Your task to perform on an android device: Open calendar and show me the fourth week of next month Image 0: 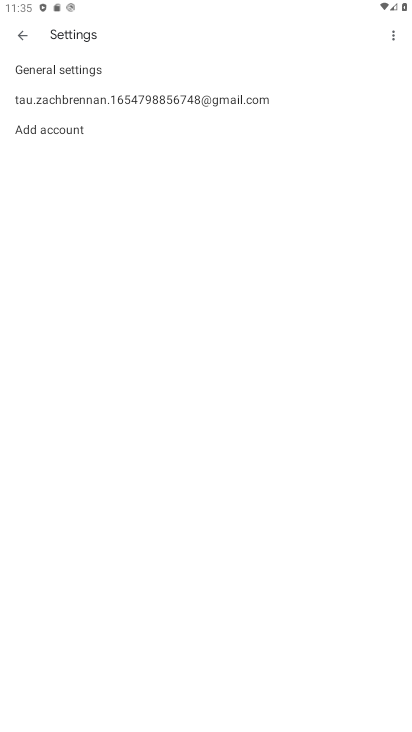
Step 0: press home button
Your task to perform on an android device: Open calendar and show me the fourth week of next month Image 1: 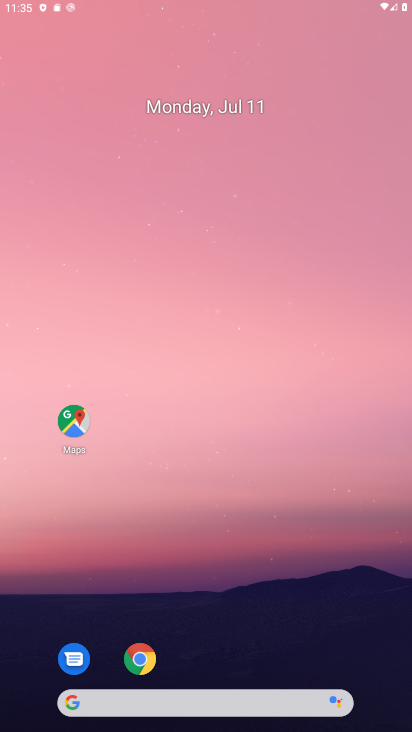
Step 1: drag from (181, 622) to (254, 278)
Your task to perform on an android device: Open calendar and show me the fourth week of next month Image 2: 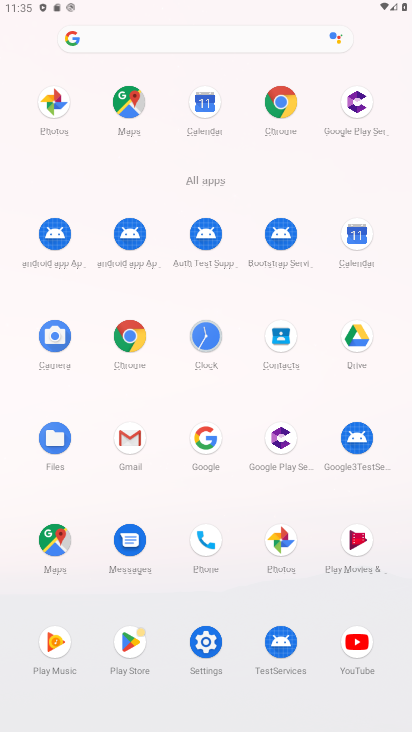
Step 2: drag from (174, 586) to (183, 406)
Your task to perform on an android device: Open calendar and show me the fourth week of next month Image 3: 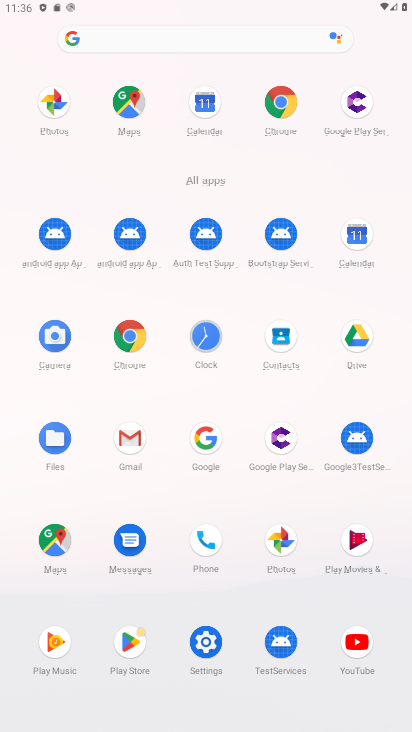
Step 3: drag from (177, 613) to (174, 447)
Your task to perform on an android device: Open calendar and show me the fourth week of next month Image 4: 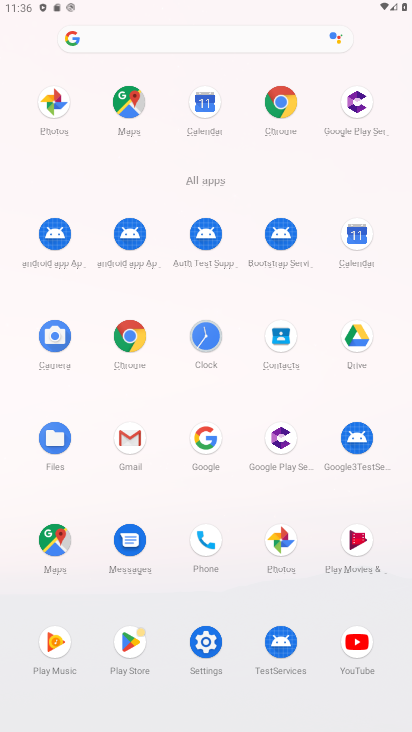
Step 4: click (359, 236)
Your task to perform on an android device: Open calendar and show me the fourth week of next month Image 5: 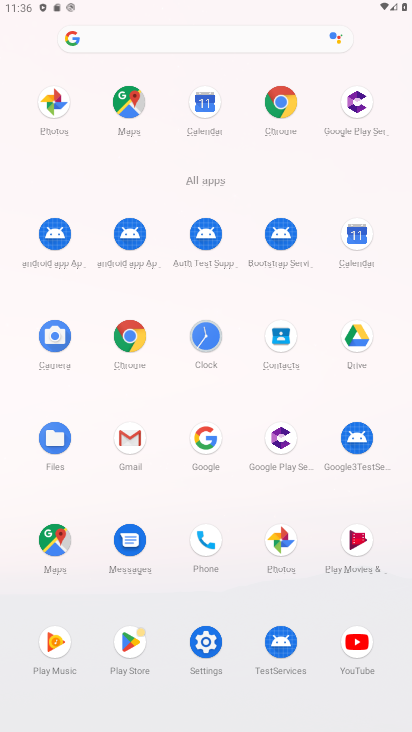
Step 5: click (359, 236)
Your task to perform on an android device: Open calendar and show me the fourth week of next month Image 6: 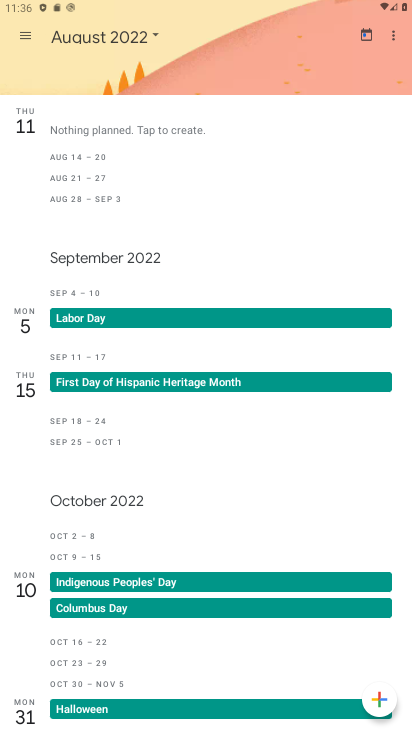
Step 6: drag from (203, 621) to (239, 443)
Your task to perform on an android device: Open calendar and show me the fourth week of next month Image 7: 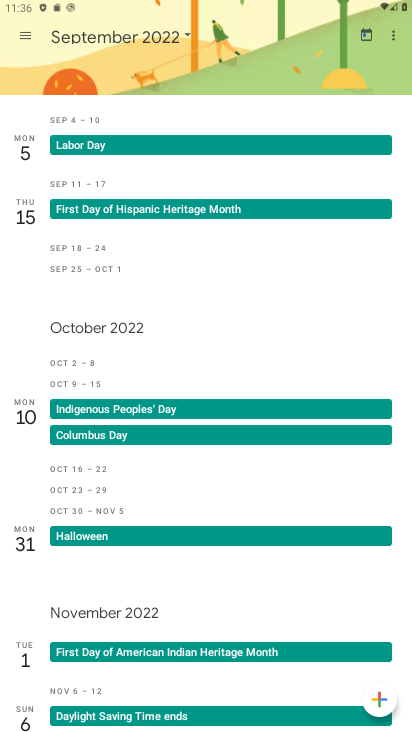
Step 7: drag from (164, 595) to (231, 388)
Your task to perform on an android device: Open calendar and show me the fourth week of next month Image 8: 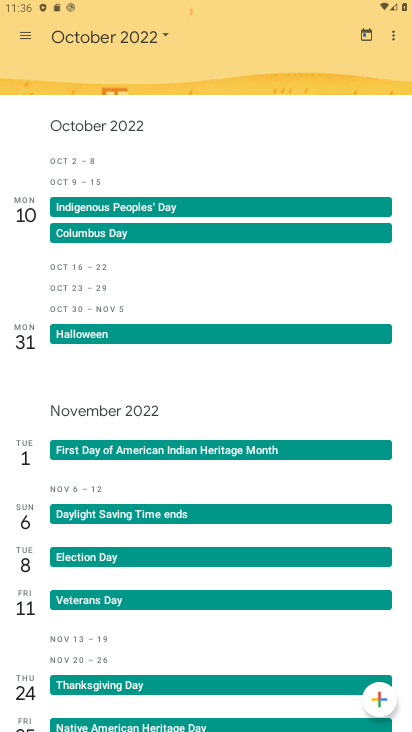
Step 8: drag from (188, 691) to (257, 414)
Your task to perform on an android device: Open calendar and show me the fourth week of next month Image 9: 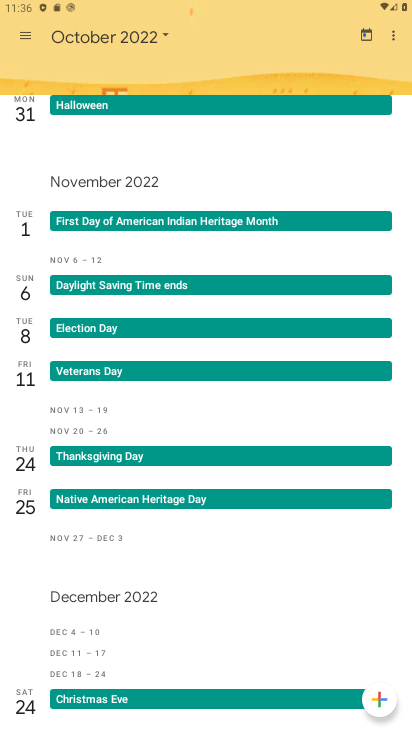
Step 9: drag from (170, 632) to (313, 83)
Your task to perform on an android device: Open calendar and show me the fourth week of next month Image 10: 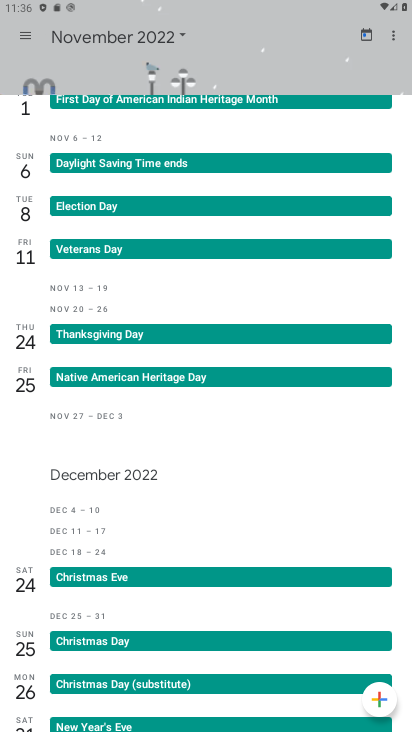
Step 10: drag from (224, 167) to (343, 722)
Your task to perform on an android device: Open calendar and show me the fourth week of next month Image 11: 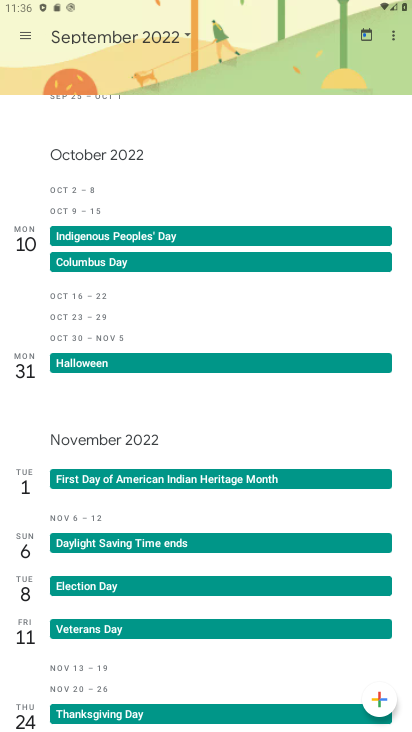
Step 11: drag from (258, 166) to (255, 728)
Your task to perform on an android device: Open calendar and show me the fourth week of next month Image 12: 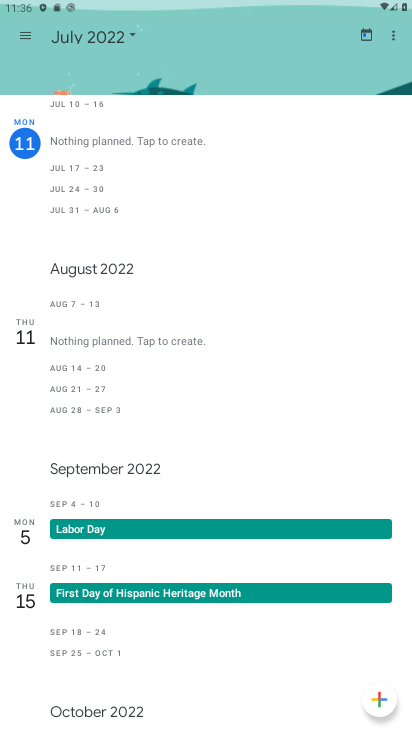
Step 12: drag from (222, 205) to (256, 647)
Your task to perform on an android device: Open calendar and show me the fourth week of next month Image 13: 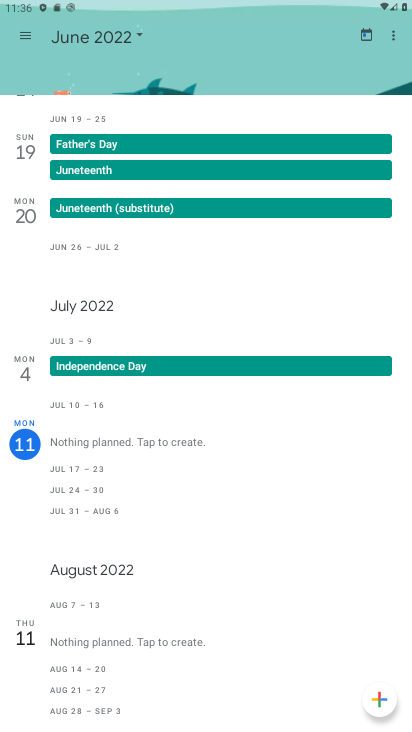
Step 13: drag from (178, 522) to (268, 197)
Your task to perform on an android device: Open calendar and show me the fourth week of next month Image 14: 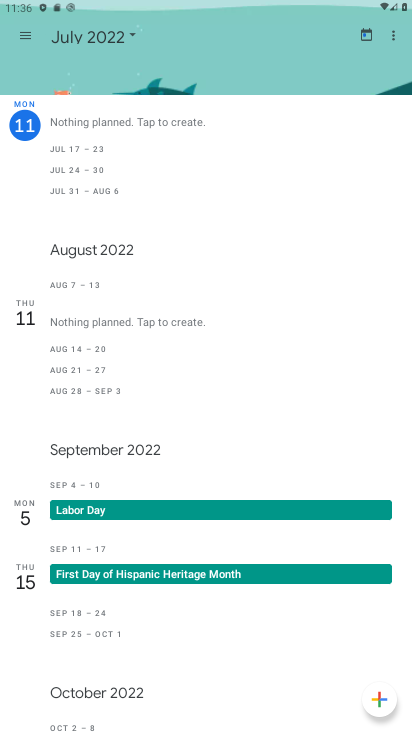
Step 14: click (102, 34)
Your task to perform on an android device: Open calendar and show me the fourth week of next month Image 15: 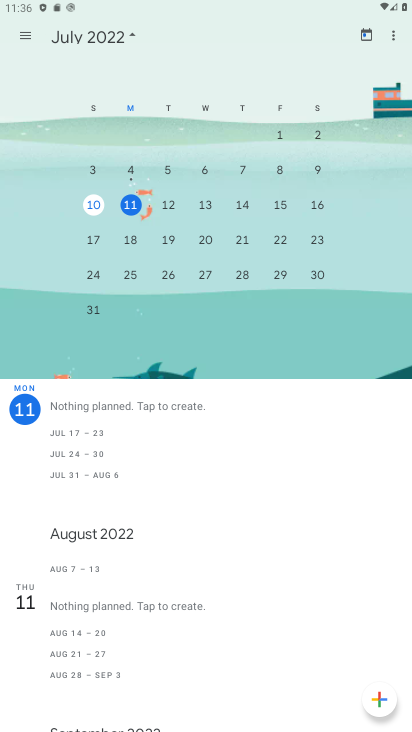
Step 15: drag from (248, 515) to (315, 284)
Your task to perform on an android device: Open calendar and show me the fourth week of next month Image 16: 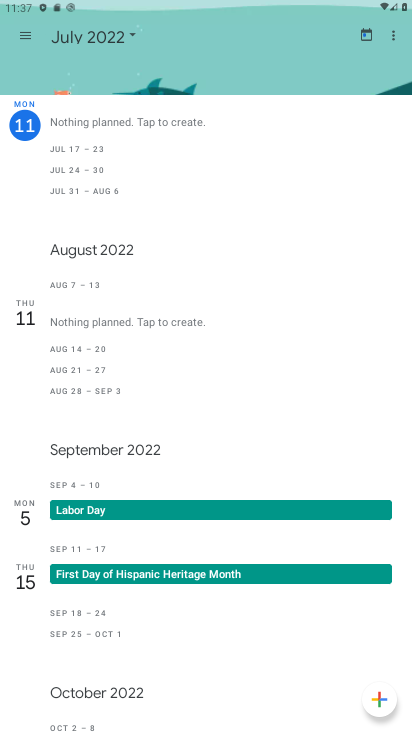
Step 16: click (96, 42)
Your task to perform on an android device: Open calendar and show me the fourth week of next month Image 17: 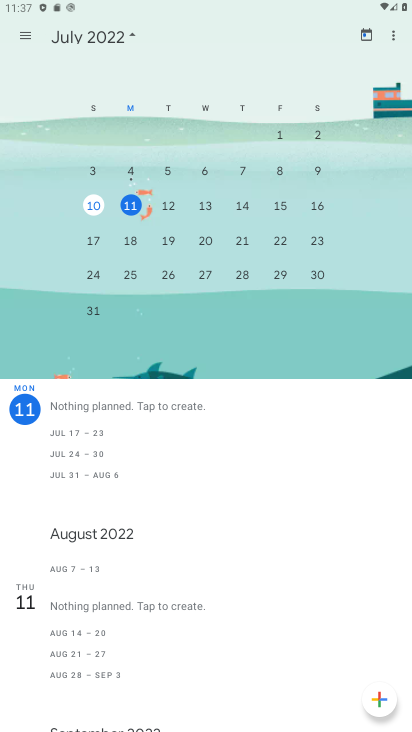
Step 17: drag from (198, 590) to (239, 377)
Your task to perform on an android device: Open calendar and show me the fourth week of next month Image 18: 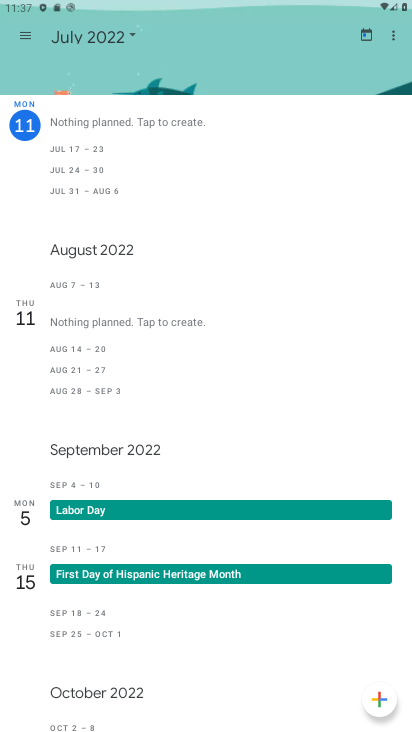
Step 18: drag from (245, 147) to (220, 669)
Your task to perform on an android device: Open calendar and show me the fourth week of next month Image 19: 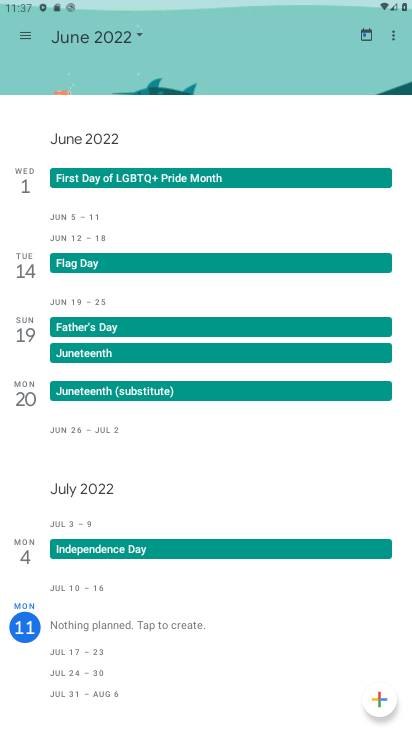
Step 19: click (101, 31)
Your task to perform on an android device: Open calendar and show me the fourth week of next month Image 20: 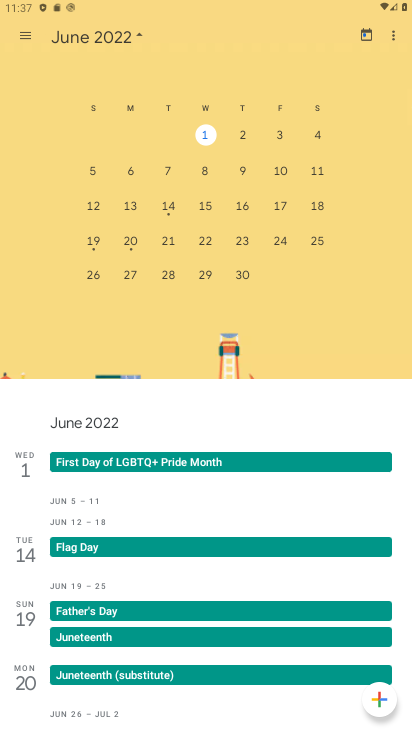
Step 20: drag from (340, 231) to (5, 260)
Your task to perform on an android device: Open calendar and show me the fourth week of next month Image 21: 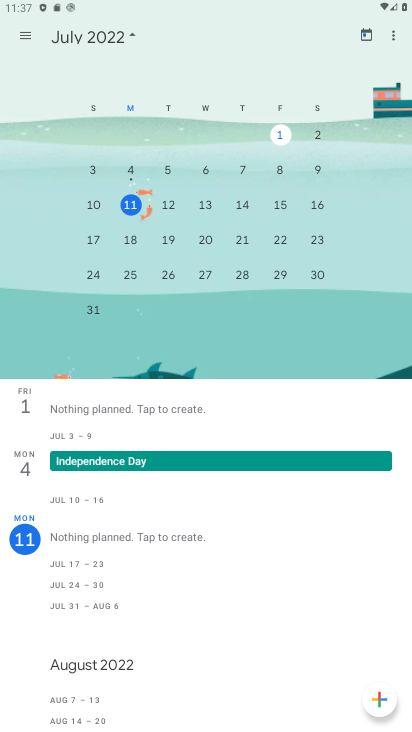
Step 21: drag from (303, 230) to (9, 232)
Your task to perform on an android device: Open calendar and show me the fourth week of next month Image 22: 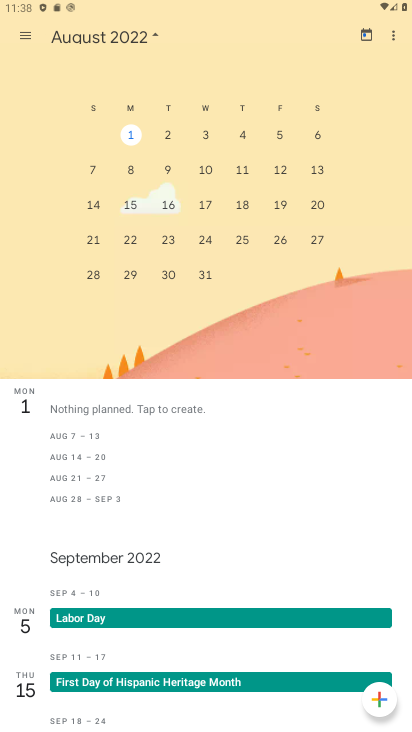
Step 22: click (242, 236)
Your task to perform on an android device: Open calendar and show me the fourth week of next month Image 23: 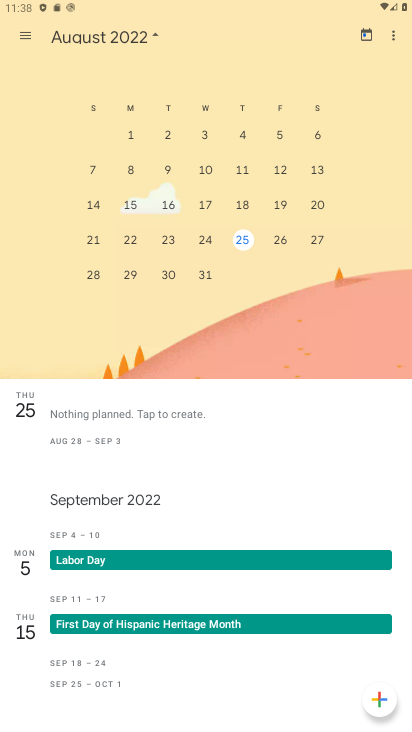
Step 23: task complete